Your task to perform on an android device: Go to ESPN.com Image 0: 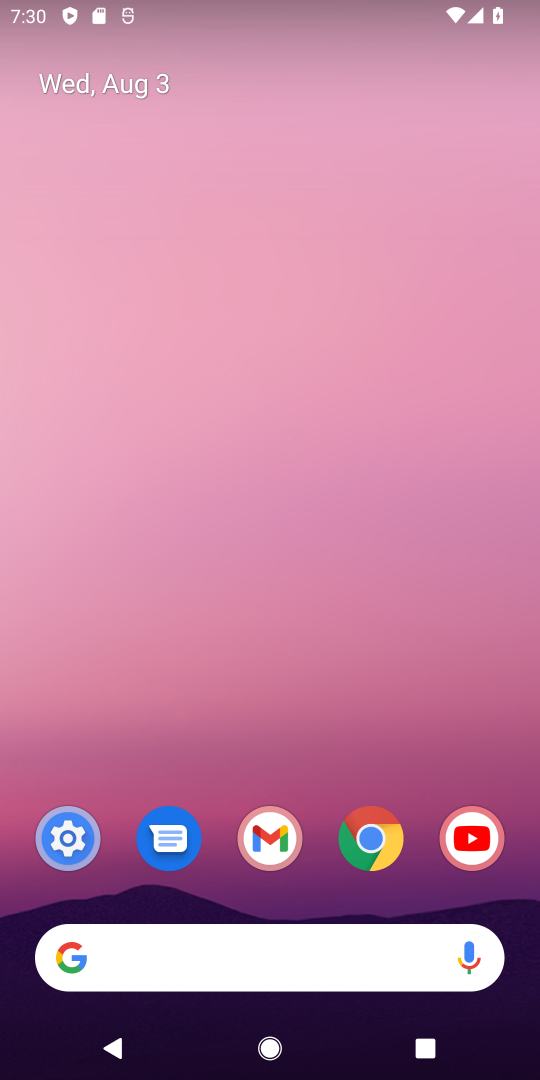
Step 0: click (347, 831)
Your task to perform on an android device: Go to ESPN.com Image 1: 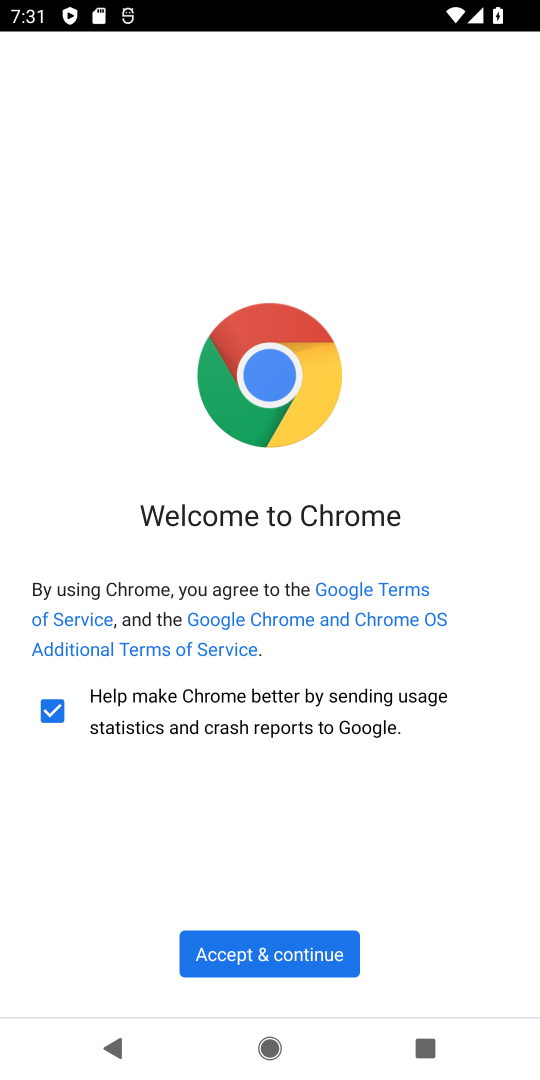
Step 1: click (250, 955)
Your task to perform on an android device: Go to ESPN.com Image 2: 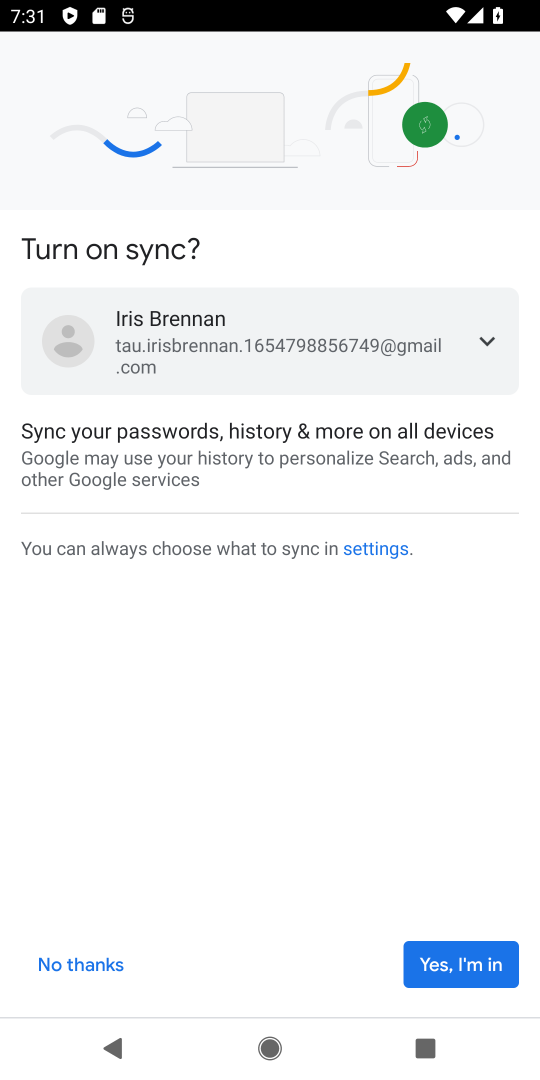
Step 2: click (440, 961)
Your task to perform on an android device: Go to ESPN.com Image 3: 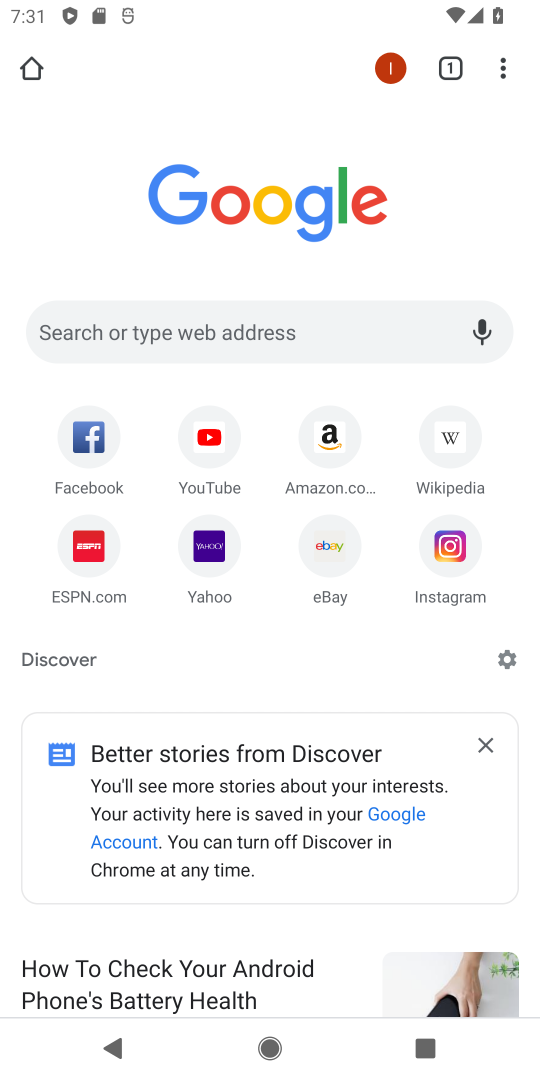
Step 3: click (82, 541)
Your task to perform on an android device: Go to ESPN.com Image 4: 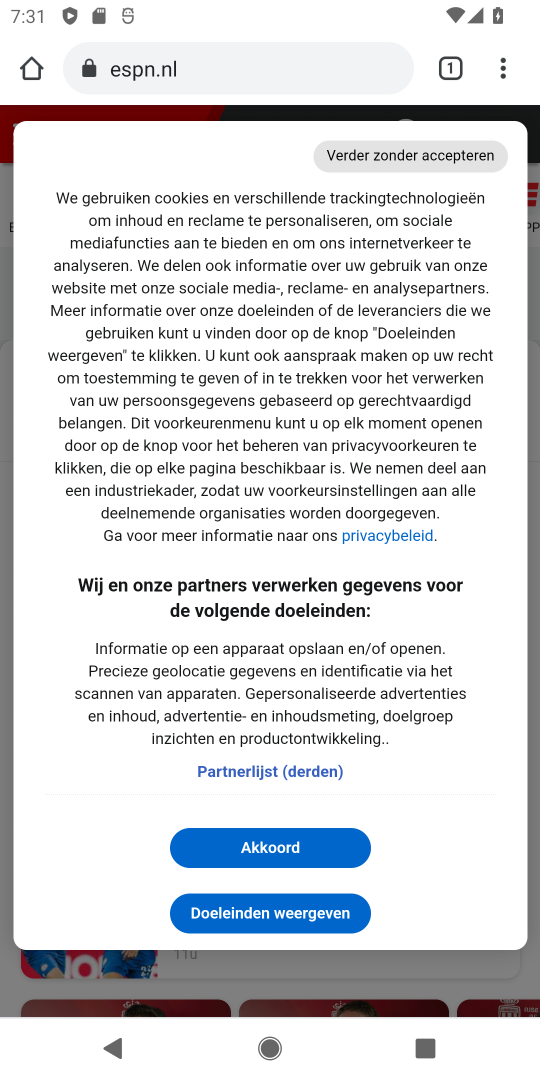
Step 4: task complete